Your task to perform on an android device: find which apps use the phone's location Image 0: 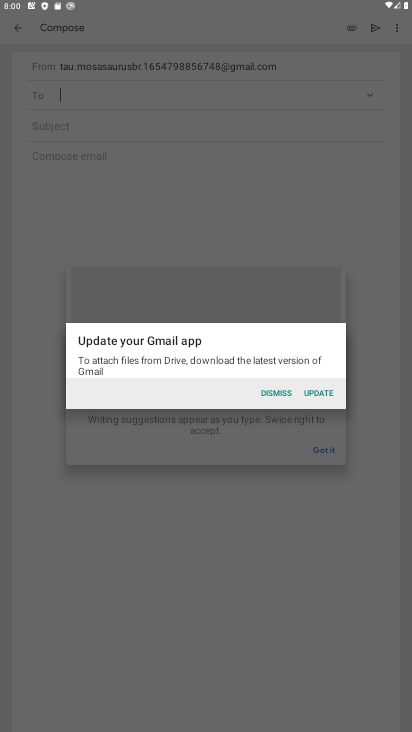
Step 0: press home button
Your task to perform on an android device: find which apps use the phone's location Image 1: 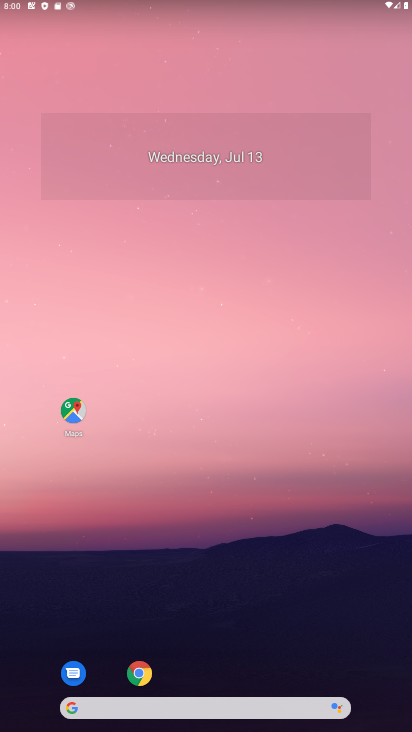
Step 1: drag from (312, 538) to (258, 125)
Your task to perform on an android device: find which apps use the phone's location Image 2: 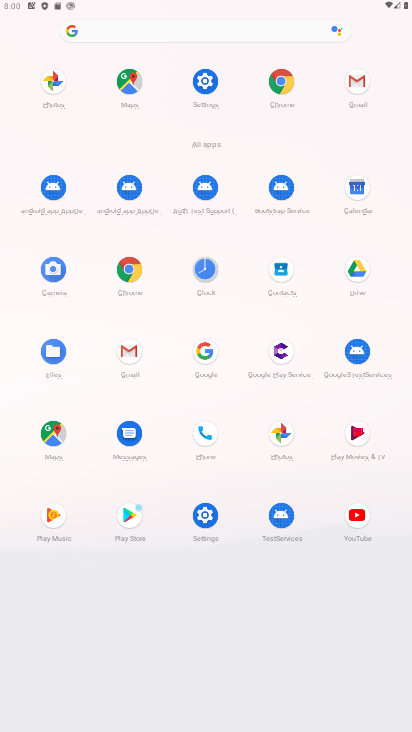
Step 2: click (209, 519)
Your task to perform on an android device: find which apps use the phone's location Image 3: 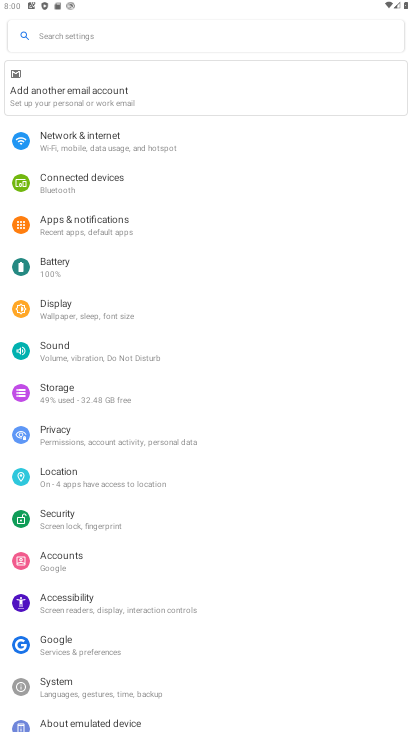
Step 3: click (76, 470)
Your task to perform on an android device: find which apps use the phone's location Image 4: 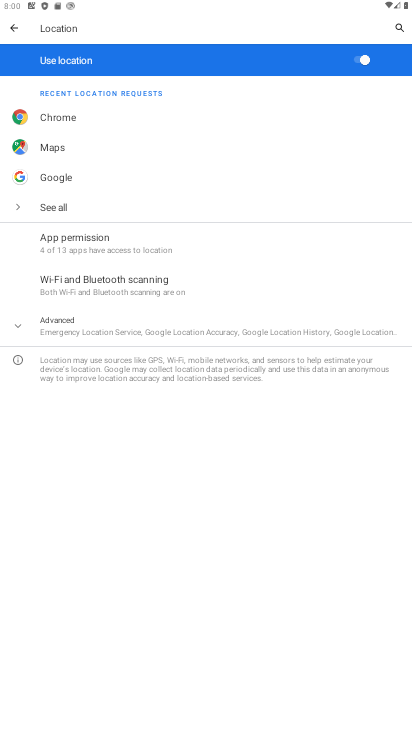
Step 4: click (104, 245)
Your task to perform on an android device: find which apps use the phone's location Image 5: 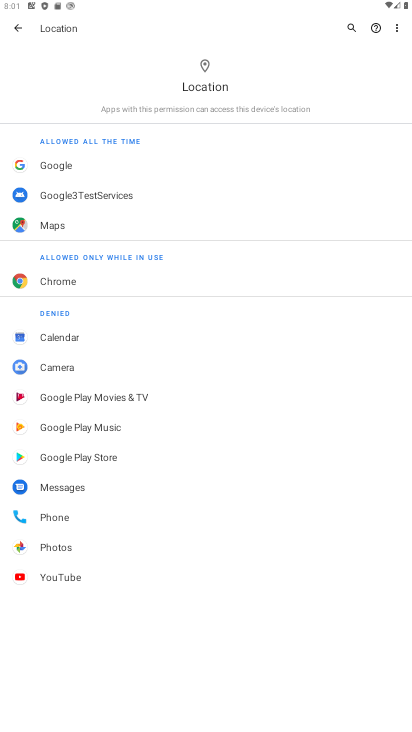
Step 5: task complete